Your task to perform on an android device: add a contact in the contacts app Image 0: 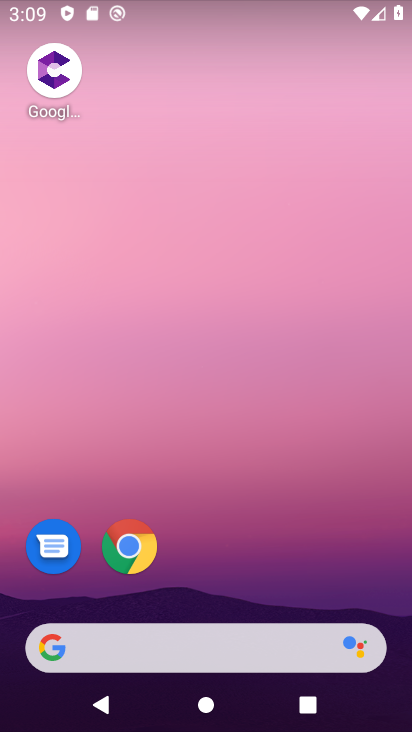
Step 0: drag from (151, 603) to (221, 203)
Your task to perform on an android device: add a contact in the contacts app Image 1: 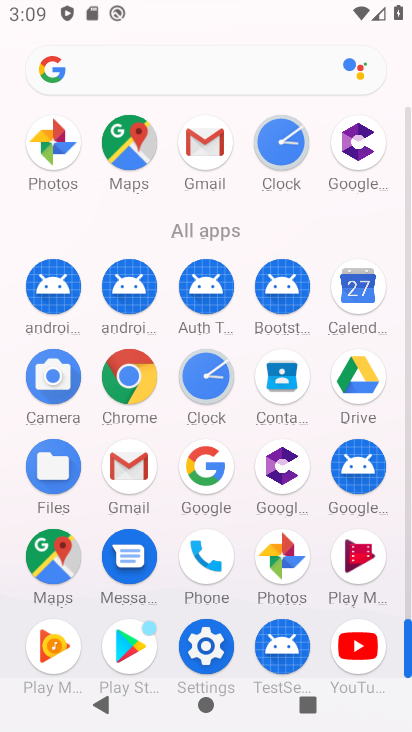
Step 1: click (284, 381)
Your task to perform on an android device: add a contact in the contacts app Image 2: 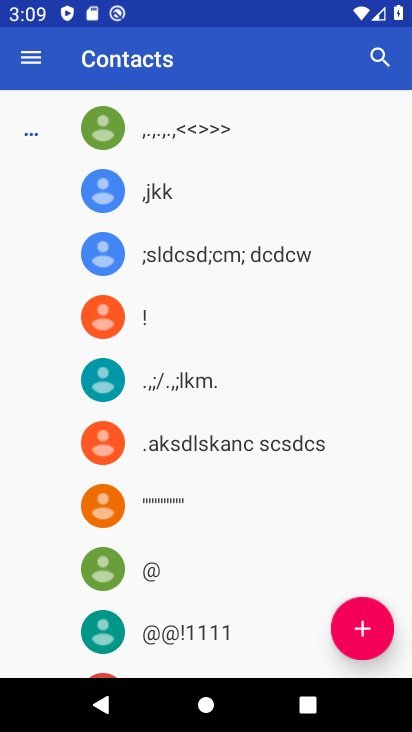
Step 2: click (366, 648)
Your task to perform on an android device: add a contact in the contacts app Image 3: 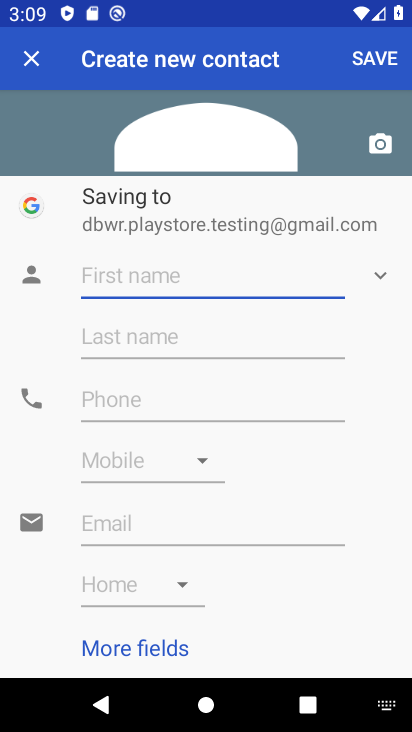
Step 3: type "oooooo"
Your task to perform on an android device: add a contact in the contacts app Image 4: 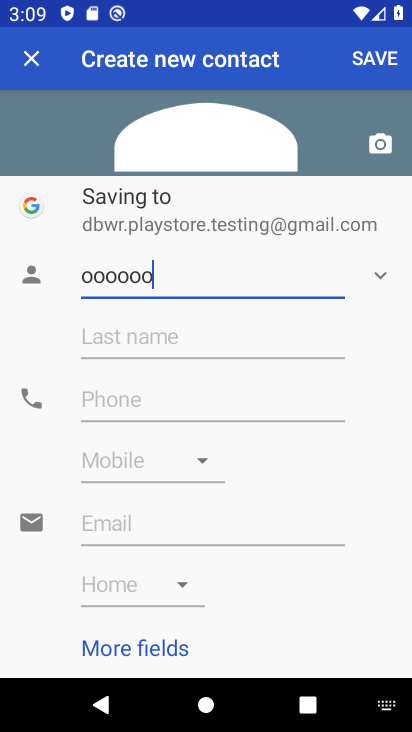
Step 4: click (120, 392)
Your task to perform on an android device: add a contact in the contacts app Image 5: 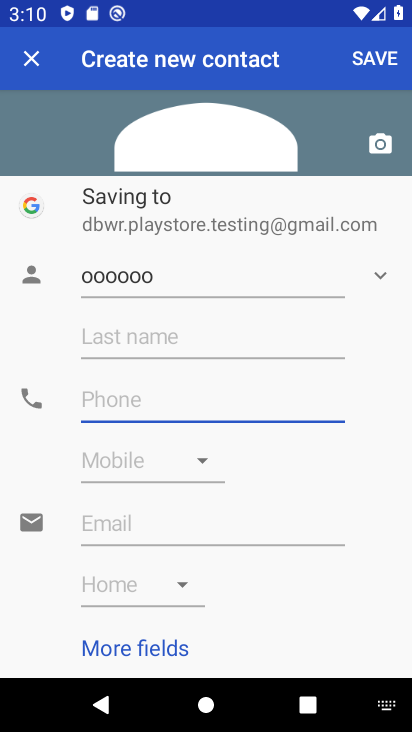
Step 5: type "97989798"
Your task to perform on an android device: add a contact in the contacts app Image 6: 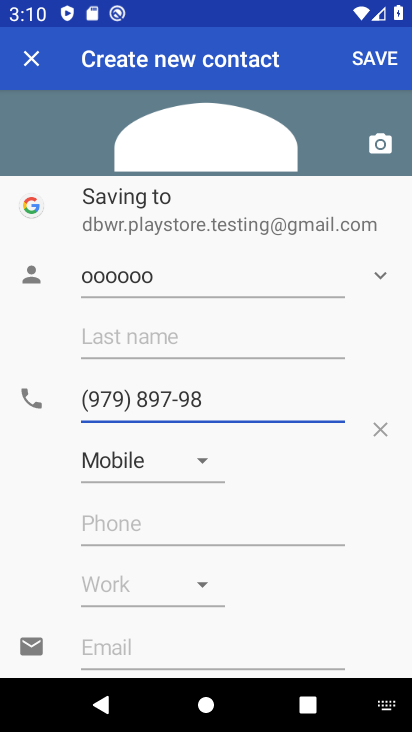
Step 6: click (392, 56)
Your task to perform on an android device: add a contact in the contacts app Image 7: 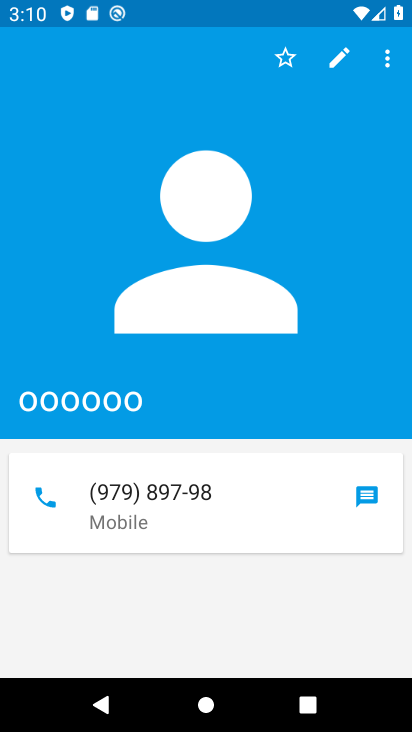
Step 7: task complete